Your task to perform on an android device: Open Chrome and go to the settings page Image 0: 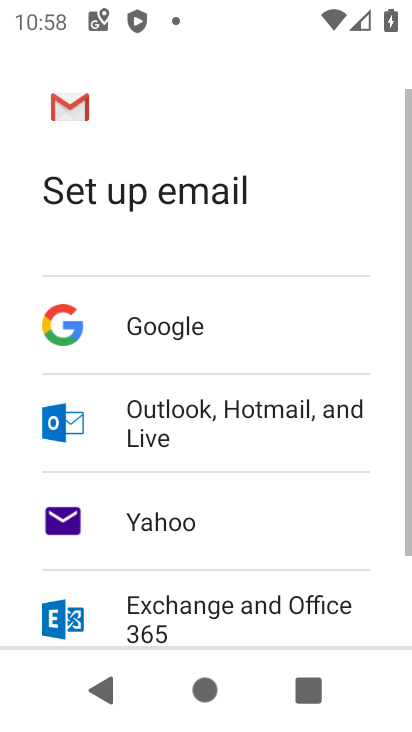
Step 0: press home button
Your task to perform on an android device: Open Chrome and go to the settings page Image 1: 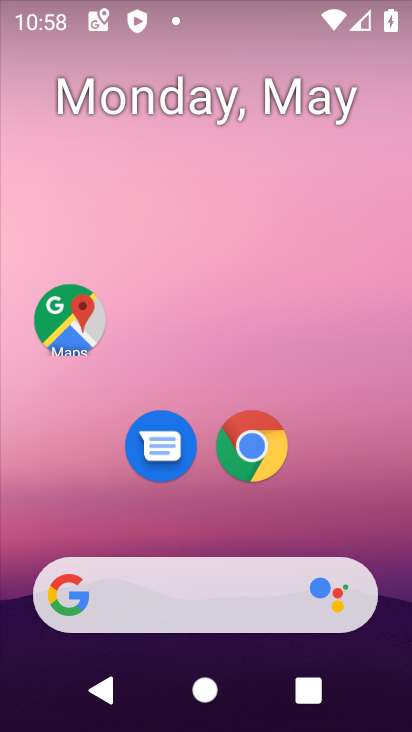
Step 1: click (221, 444)
Your task to perform on an android device: Open Chrome and go to the settings page Image 2: 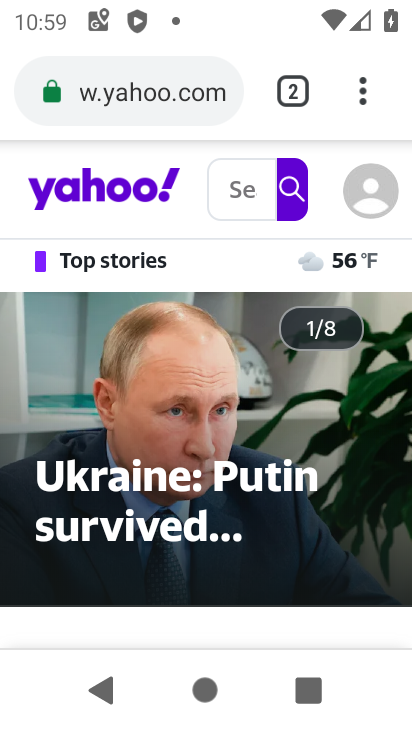
Step 2: click (373, 94)
Your task to perform on an android device: Open Chrome and go to the settings page Image 3: 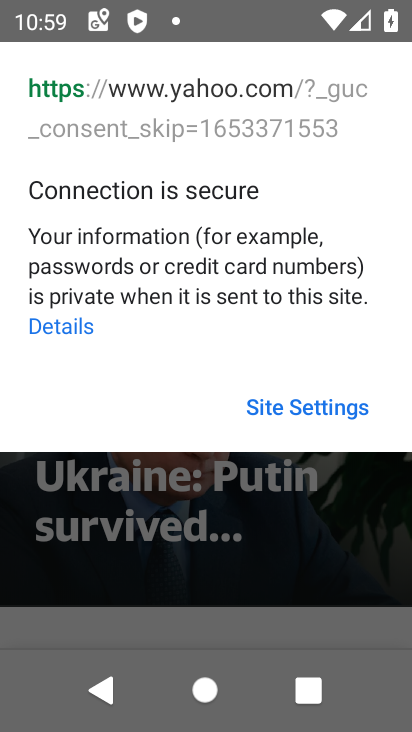
Step 3: click (224, 506)
Your task to perform on an android device: Open Chrome and go to the settings page Image 4: 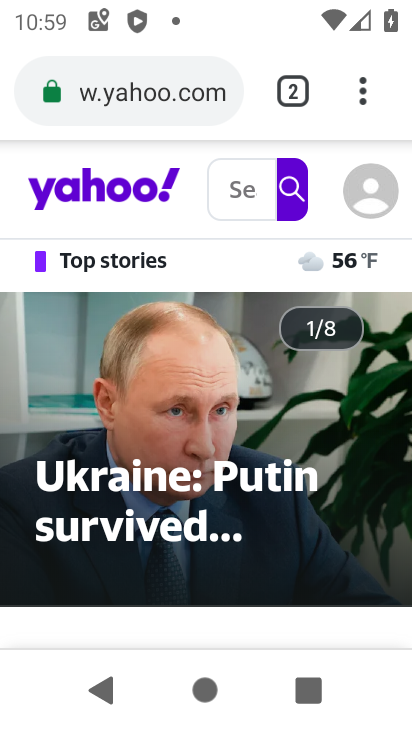
Step 4: task complete